Your task to perform on an android device: View the shopping cart on target.com. Image 0: 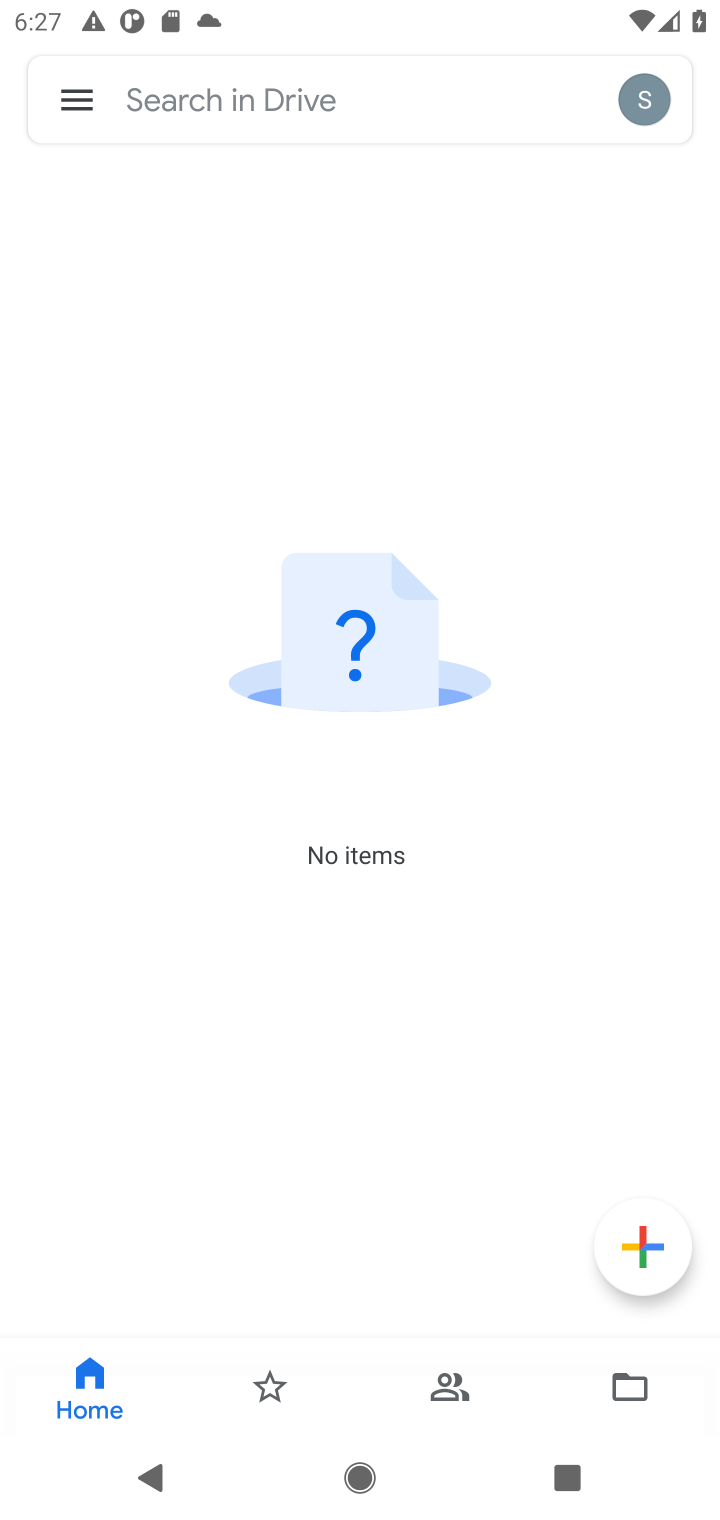
Step 0: press home button
Your task to perform on an android device: View the shopping cart on target.com. Image 1: 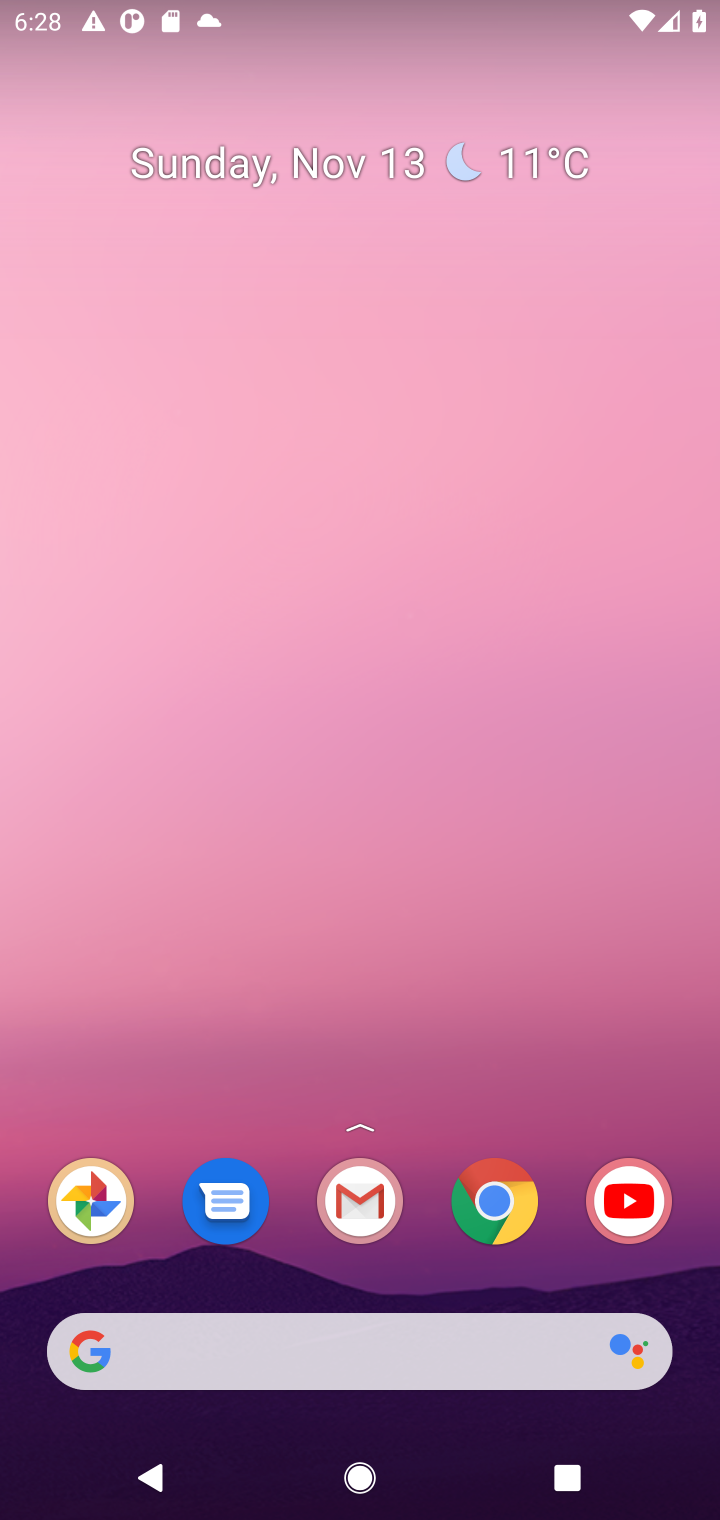
Step 1: drag from (384, 1295) to (380, 451)
Your task to perform on an android device: View the shopping cart on target.com. Image 2: 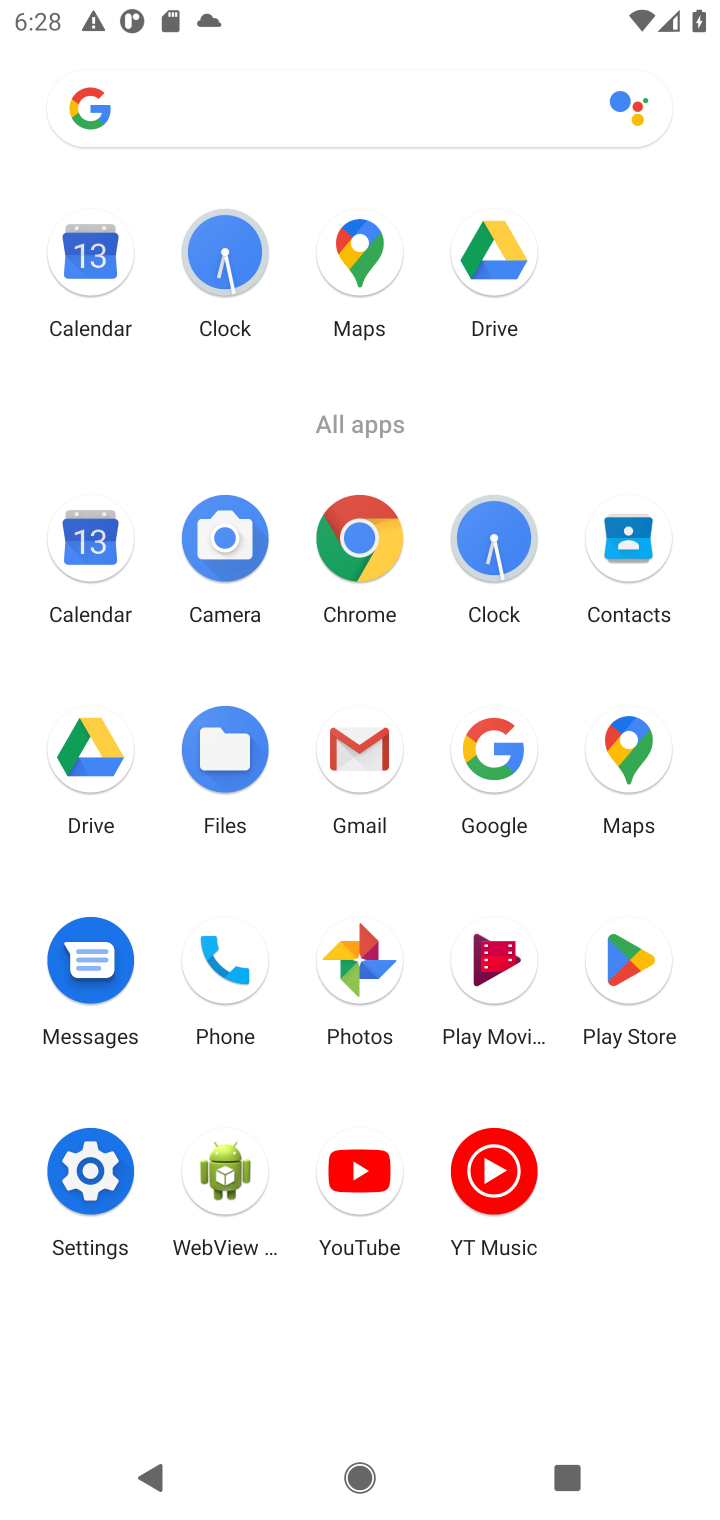
Step 2: click (362, 544)
Your task to perform on an android device: View the shopping cart on target.com. Image 3: 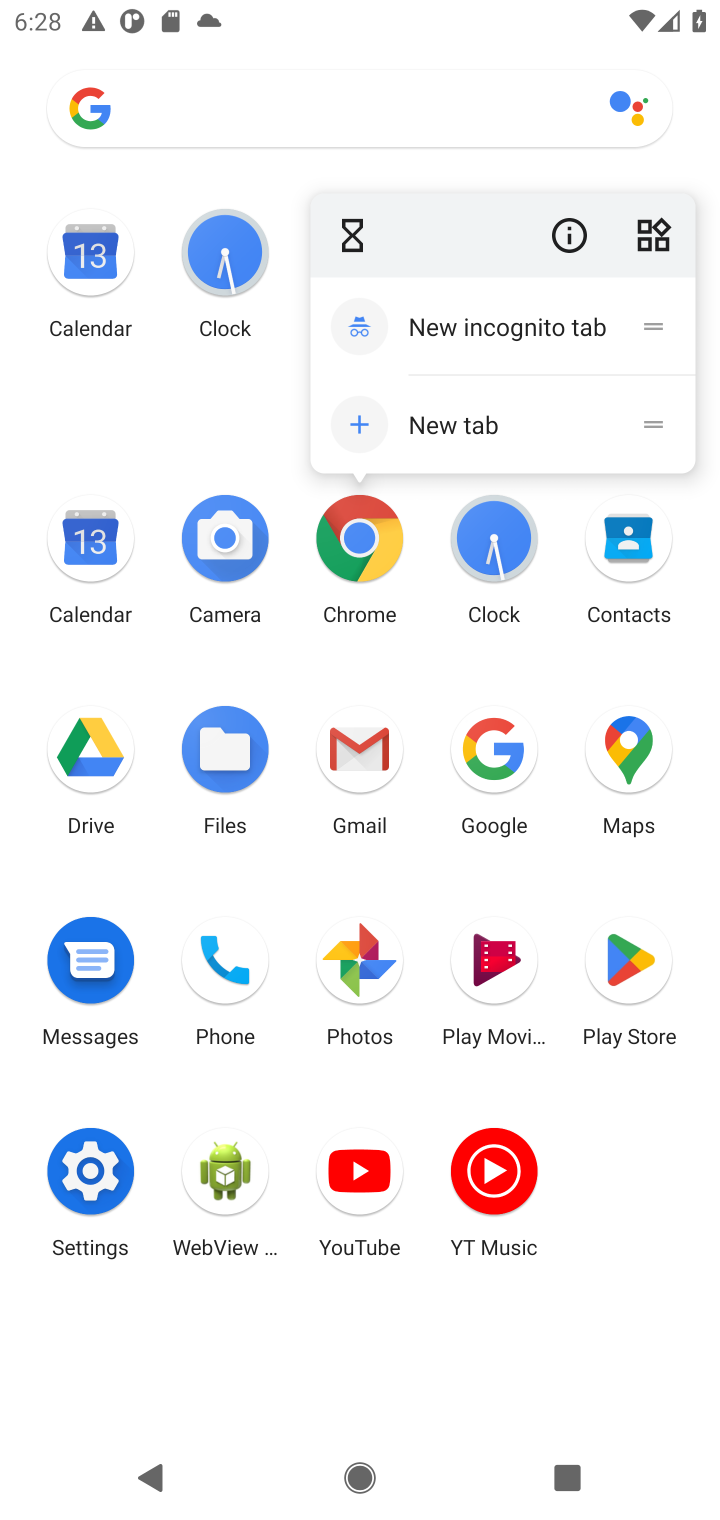
Step 3: click (394, 547)
Your task to perform on an android device: View the shopping cart on target.com. Image 4: 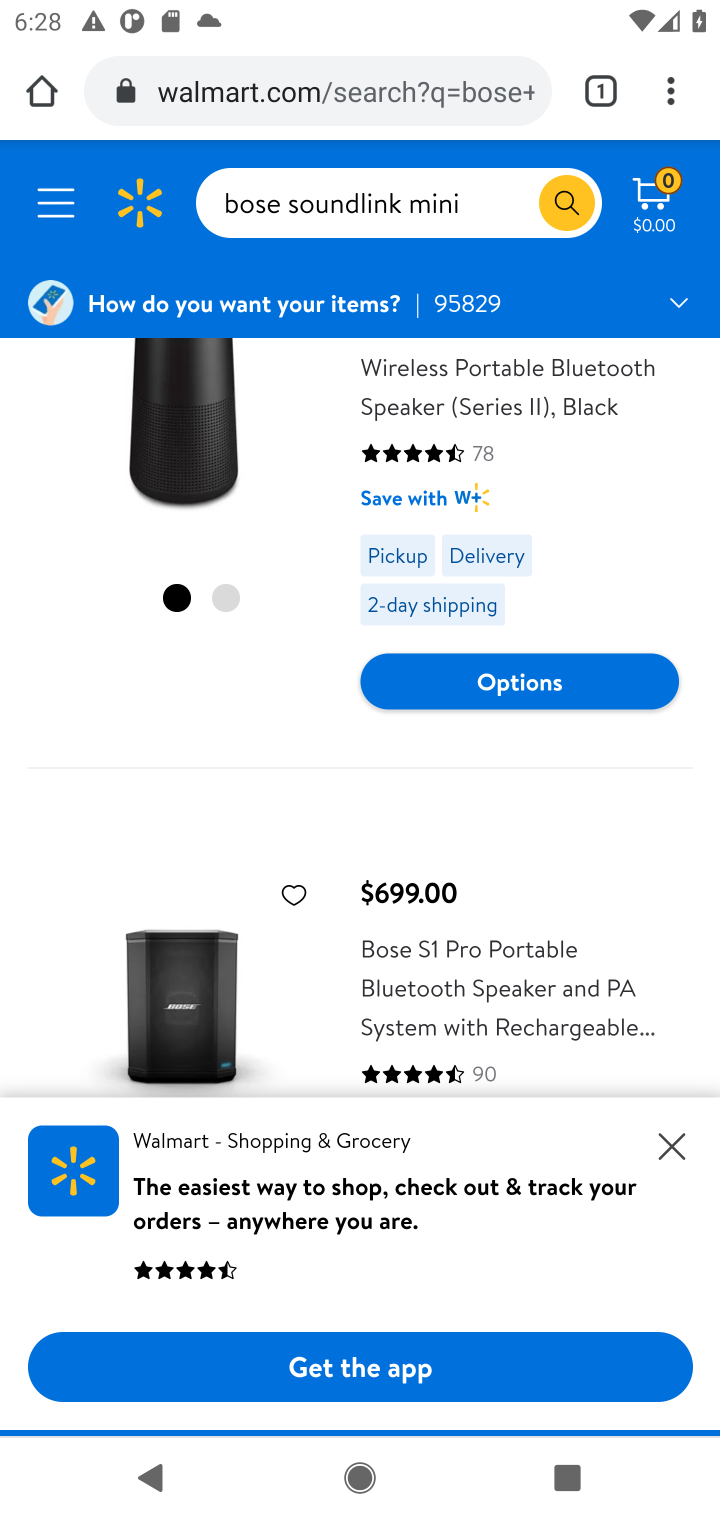
Step 4: click (467, 79)
Your task to perform on an android device: View the shopping cart on target.com. Image 5: 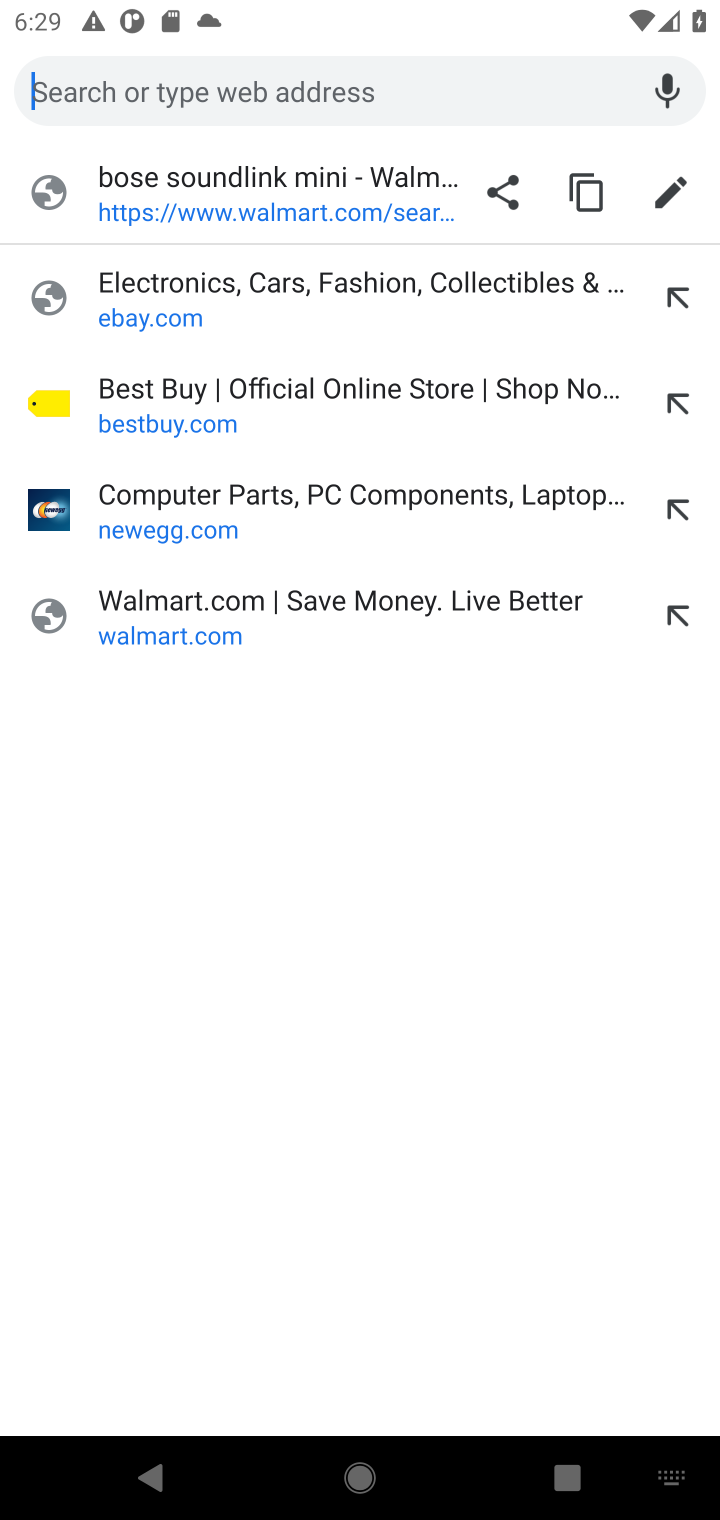
Step 5: type "target.com"
Your task to perform on an android device: View the shopping cart on target.com. Image 6: 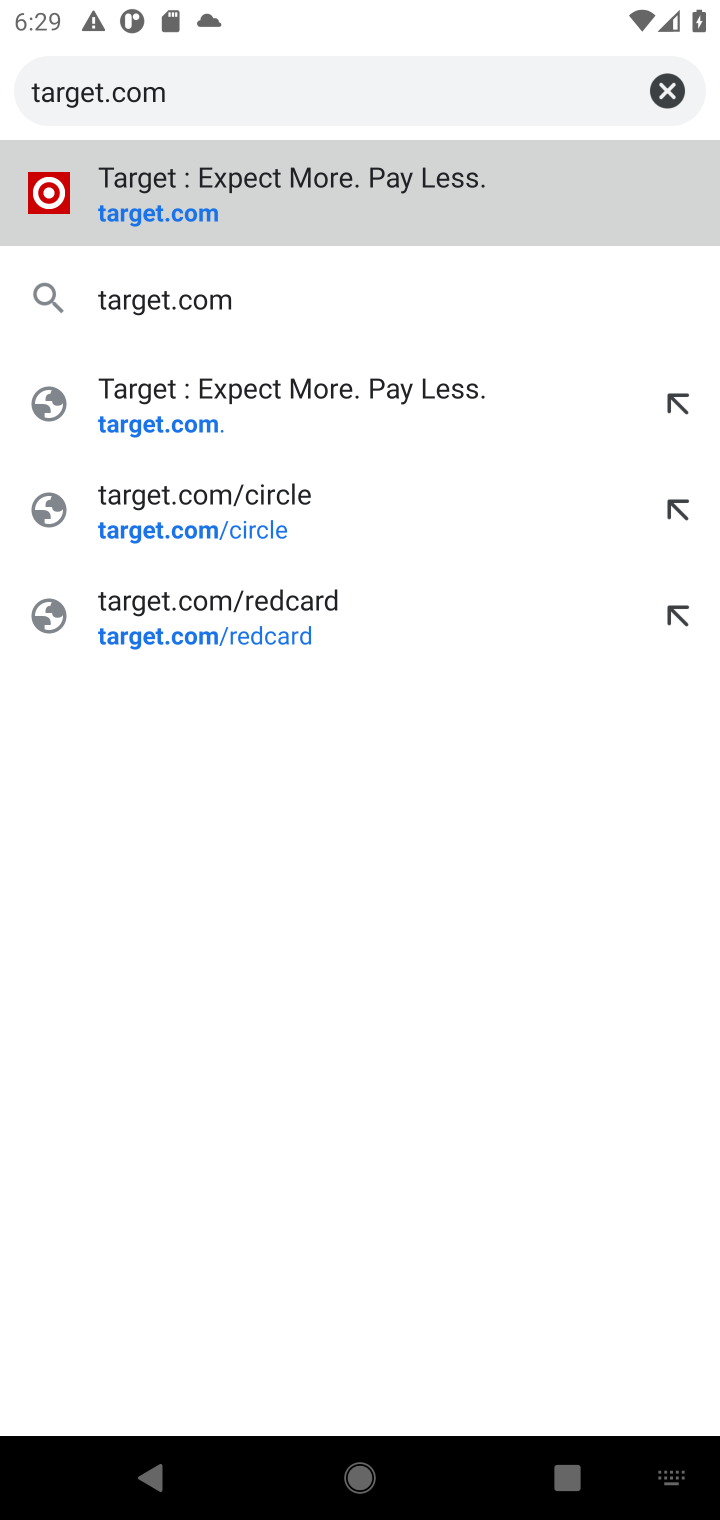
Step 6: press enter
Your task to perform on an android device: View the shopping cart on target.com. Image 7: 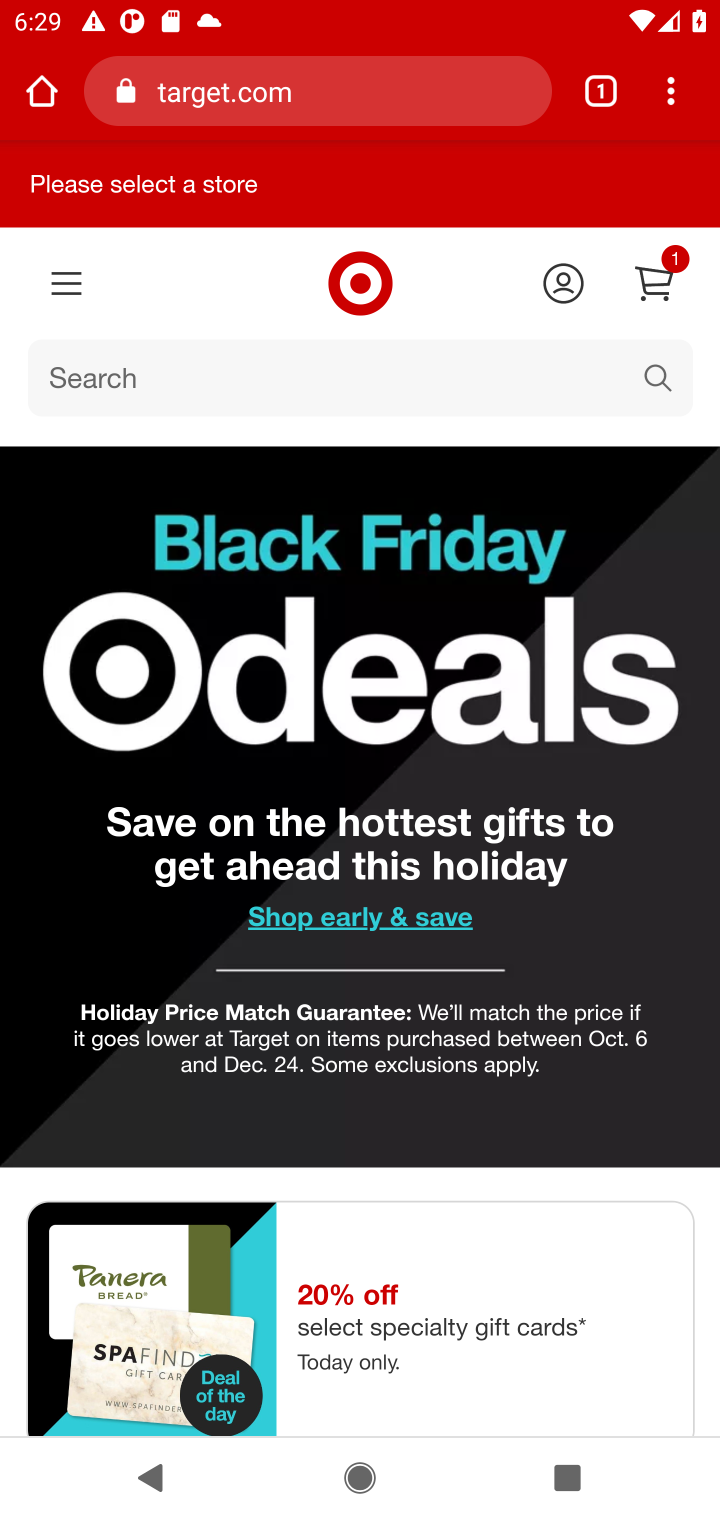
Step 7: click (671, 284)
Your task to perform on an android device: View the shopping cart on target.com. Image 8: 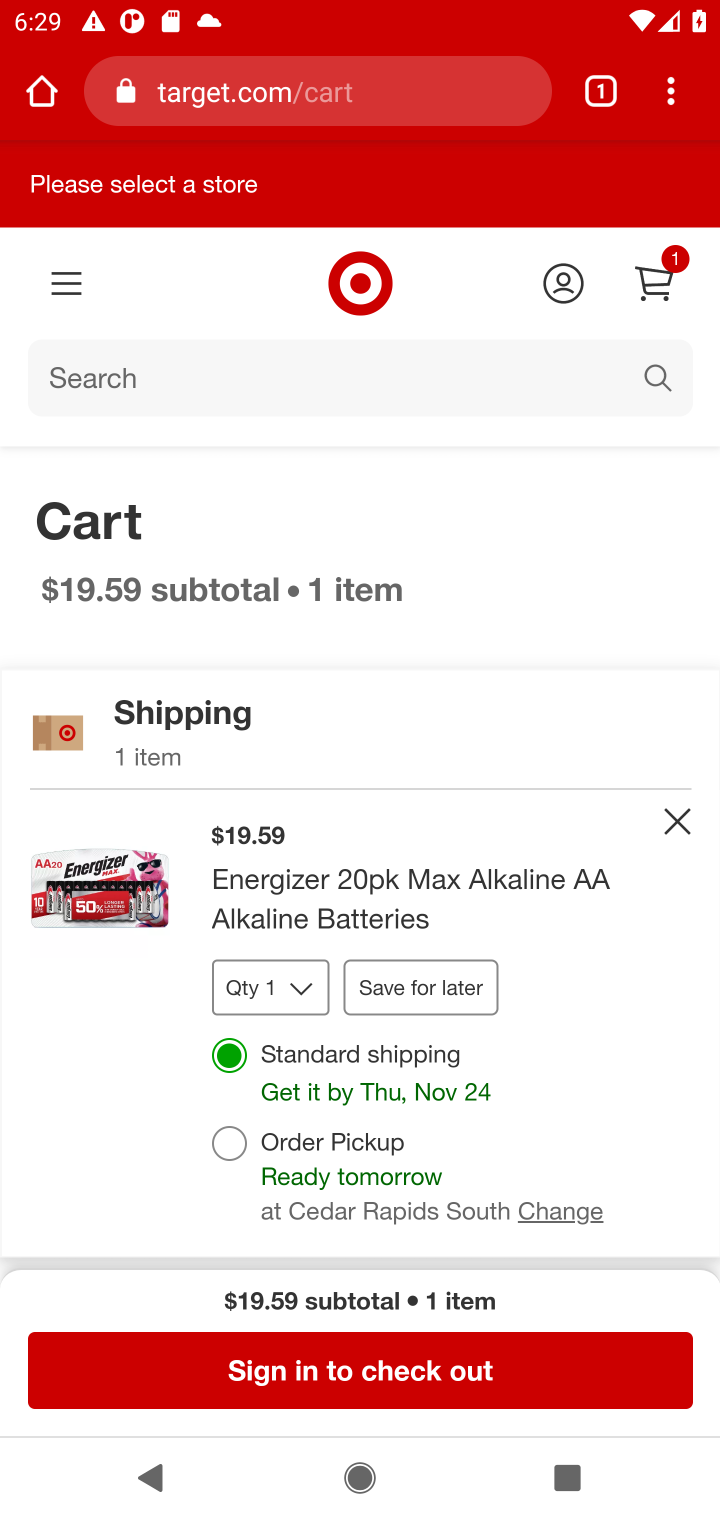
Step 8: task complete